Your task to perform on an android device: change notifications settings Image 0: 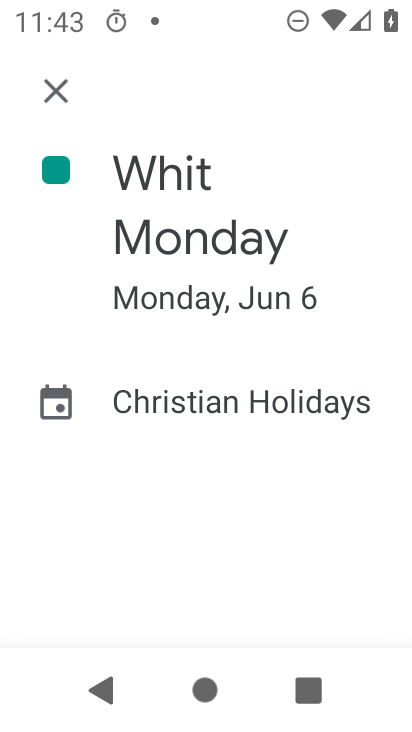
Step 0: drag from (231, 531) to (328, 110)
Your task to perform on an android device: change notifications settings Image 1: 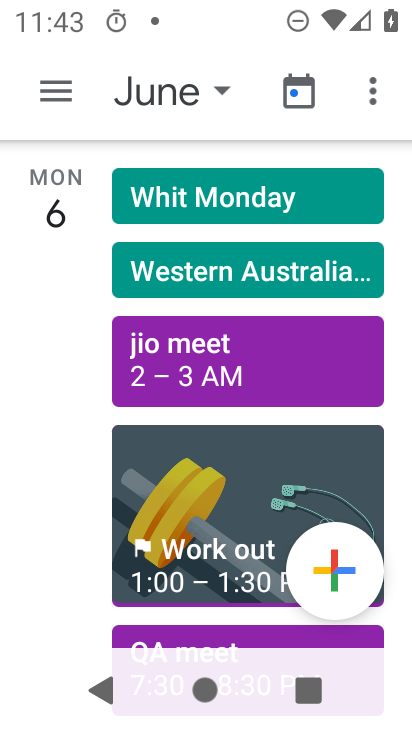
Step 1: press back button
Your task to perform on an android device: change notifications settings Image 2: 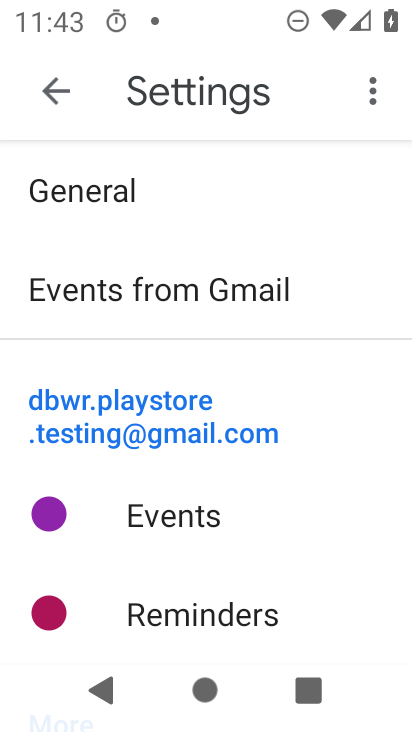
Step 2: press back button
Your task to perform on an android device: change notifications settings Image 3: 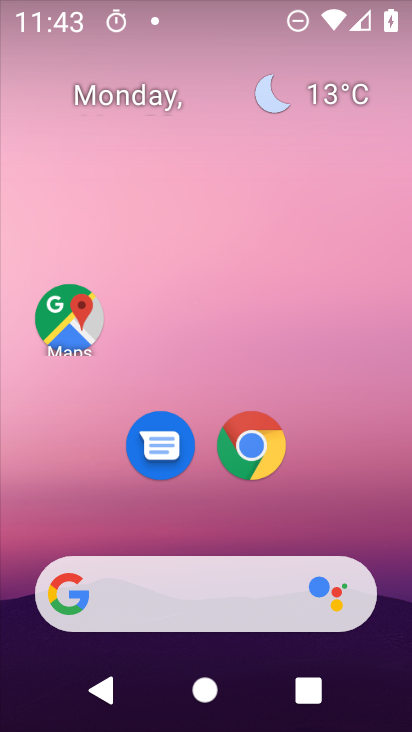
Step 3: drag from (204, 534) to (264, 92)
Your task to perform on an android device: change notifications settings Image 4: 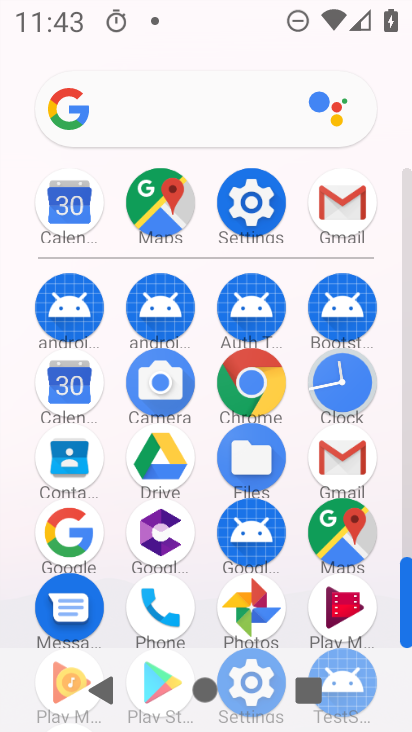
Step 4: click (249, 190)
Your task to perform on an android device: change notifications settings Image 5: 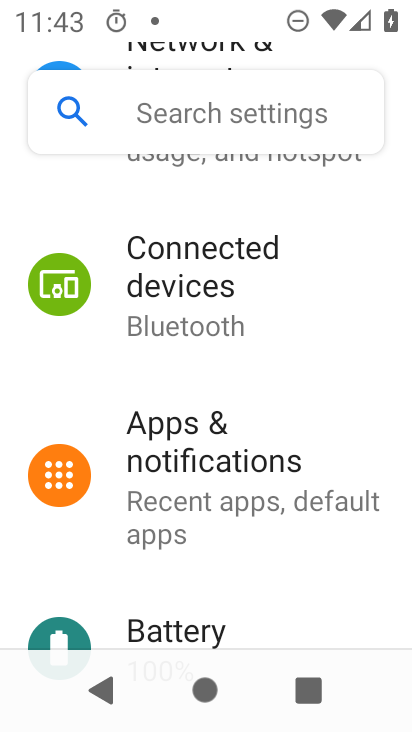
Step 5: click (228, 468)
Your task to perform on an android device: change notifications settings Image 6: 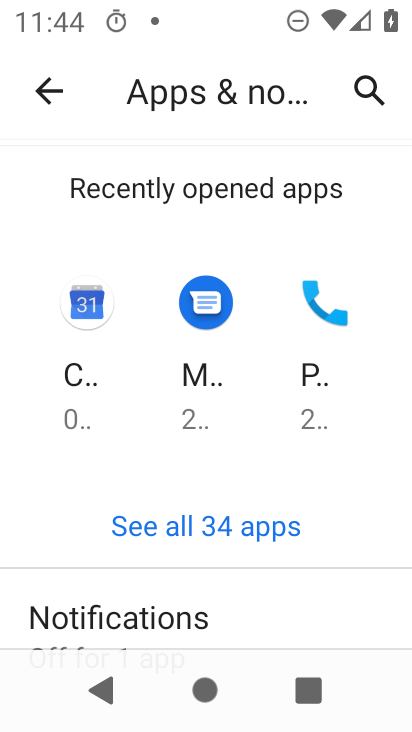
Step 6: drag from (187, 642) to (329, 178)
Your task to perform on an android device: change notifications settings Image 7: 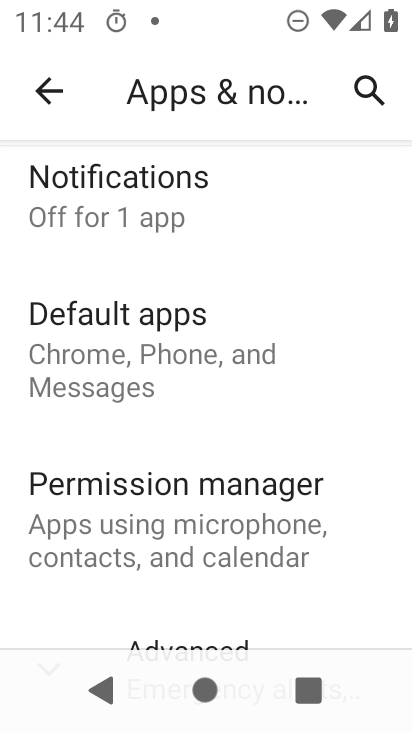
Step 7: click (153, 187)
Your task to perform on an android device: change notifications settings Image 8: 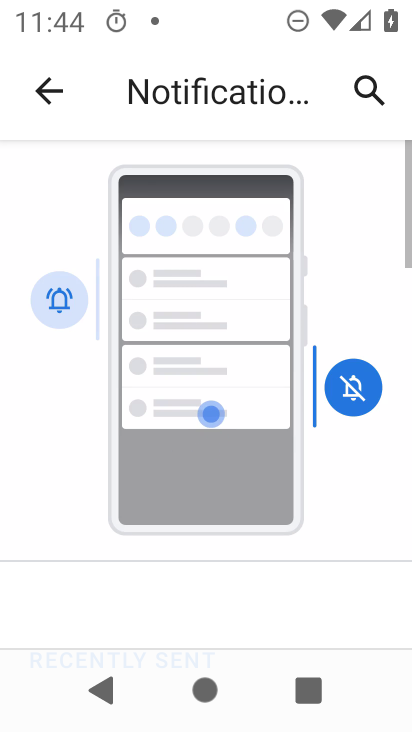
Step 8: drag from (308, 592) to (393, 56)
Your task to perform on an android device: change notifications settings Image 9: 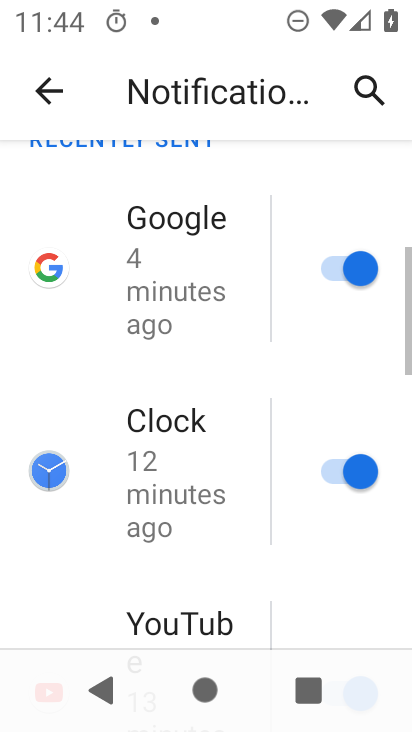
Step 9: drag from (222, 577) to (269, 175)
Your task to perform on an android device: change notifications settings Image 10: 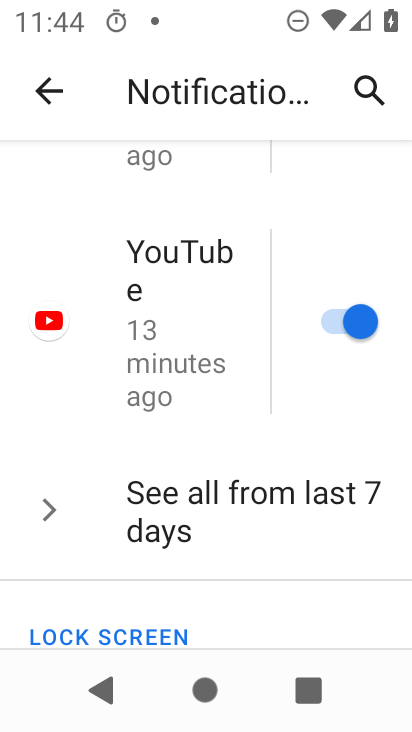
Step 10: drag from (189, 591) to (325, 72)
Your task to perform on an android device: change notifications settings Image 11: 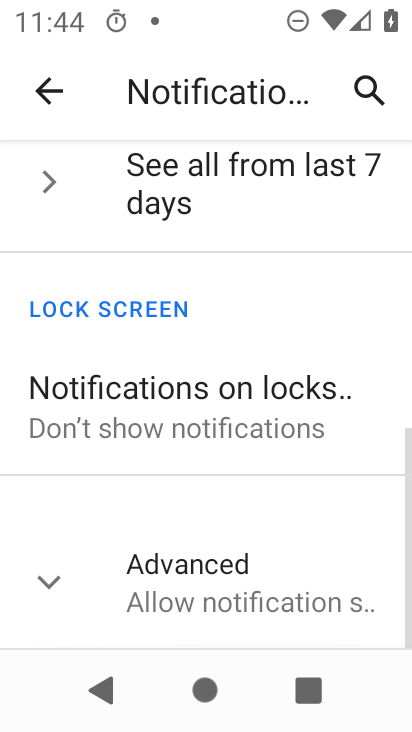
Step 11: click (235, 594)
Your task to perform on an android device: change notifications settings Image 12: 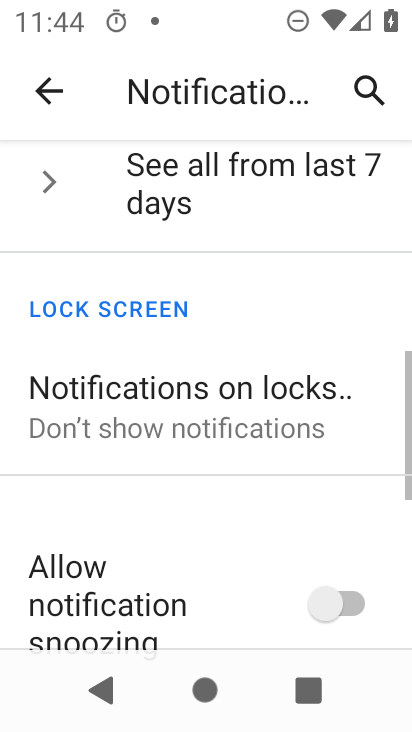
Step 12: drag from (248, 577) to (271, 207)
Your task to perform on an android device: change notifications settings Image 13: 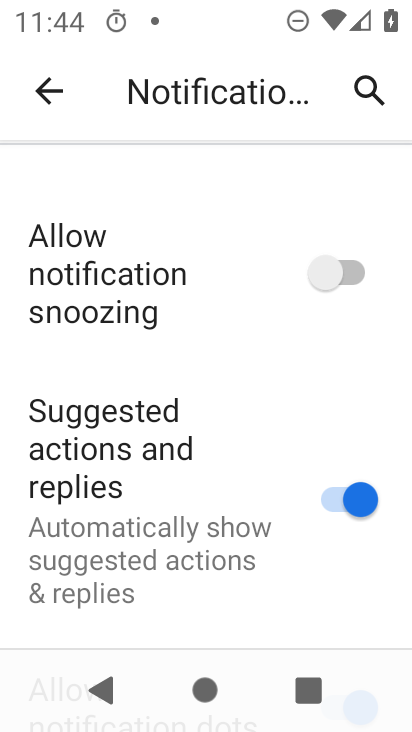
Step 13: click (314, 274)
Your task to perform on an android device: change notifications settings Image 14: 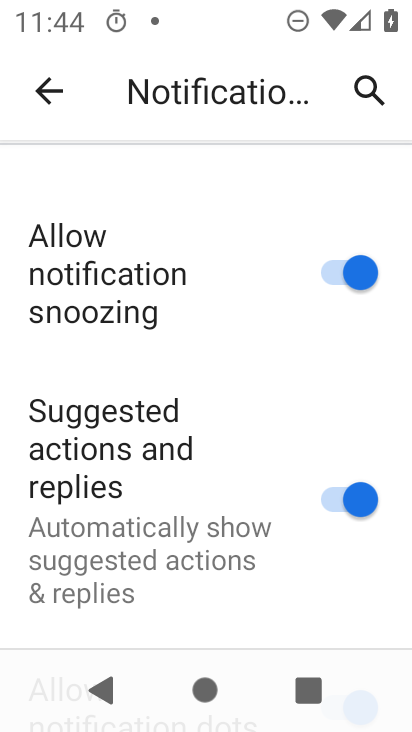
Step 14: task complete